Your task to perform on an android device: find photos in the google photos app Image 0: 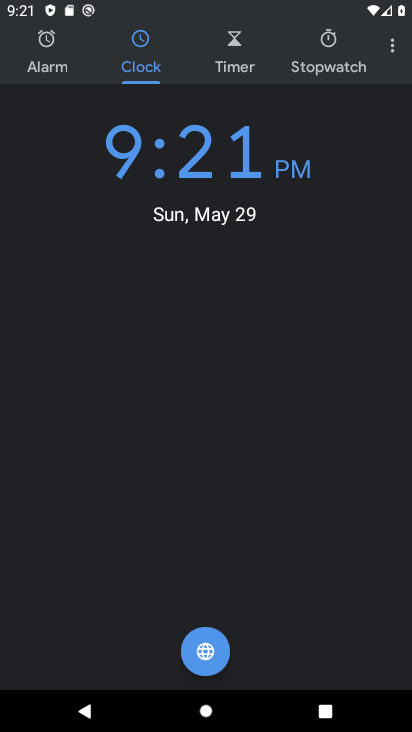
Step 0: press home button
Your task to perform on an android device: find photos in the google photos app Image 1: 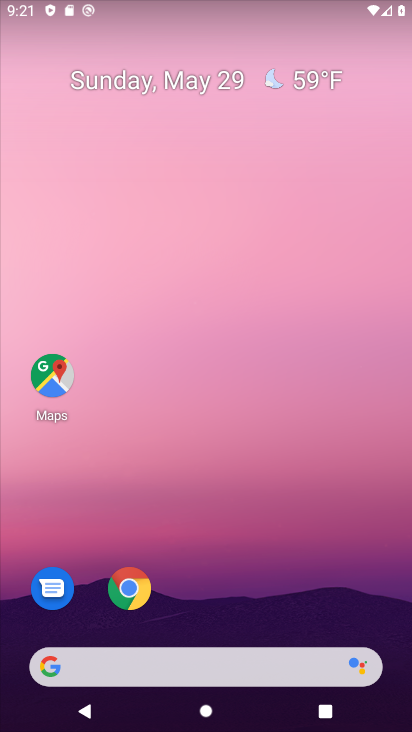
Step 1: drag from (211, 558) to (139, 6)
Your task to perform on an android device: find photos in the google photos app Image 2: 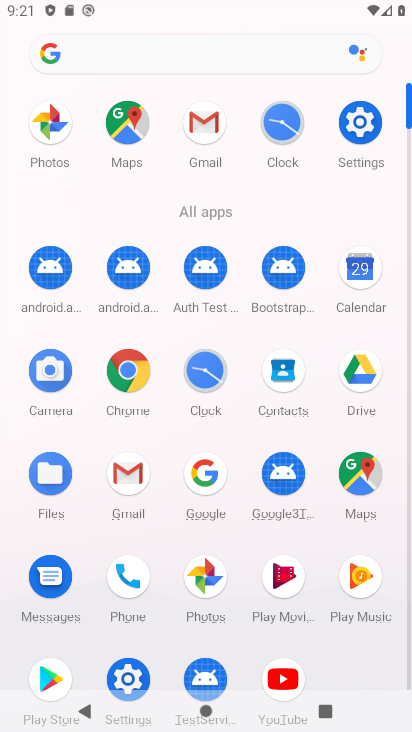
Step 2: click (213, 589)
Your task to perform on an android device: find photos in the google photos app Image 3: 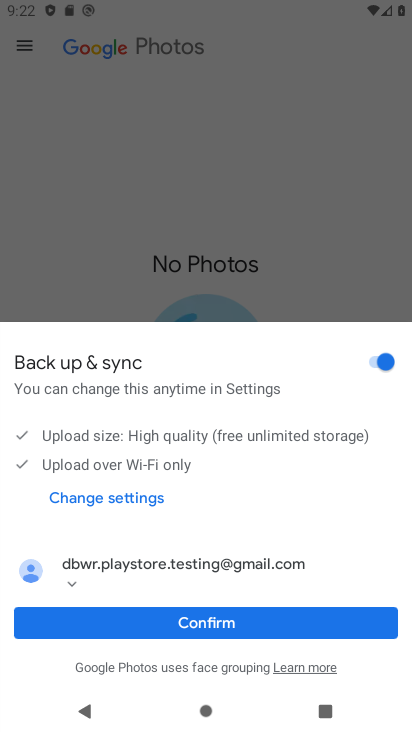
Step 3: click (223, 615)
Your task to perform on an android device: find photos in the google photos app Image 4: 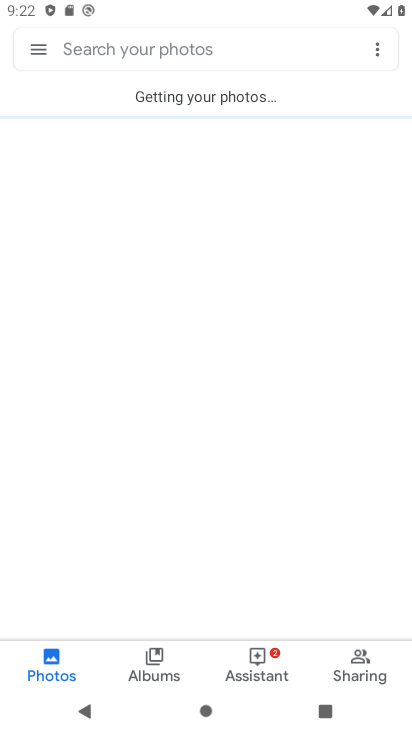
Step 4: task complete